Your task to perform on an android device: Open calendar and show me the third week of next month Image 0: 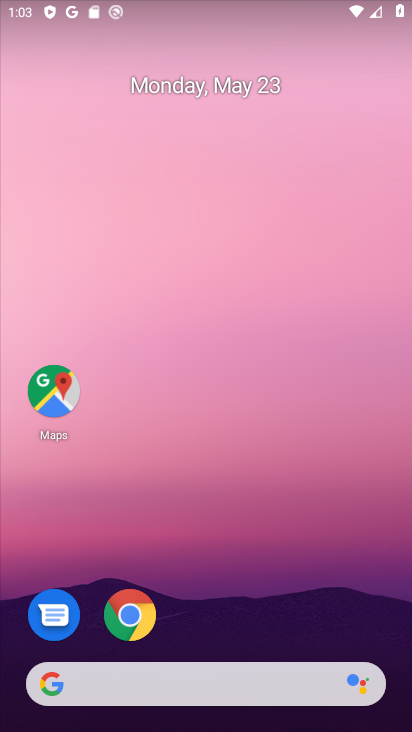
Step 0: drag from (205, 656) to (140, 104)
Your task to perform on an android device: Open calendar and show me the third week of next month Image 1: 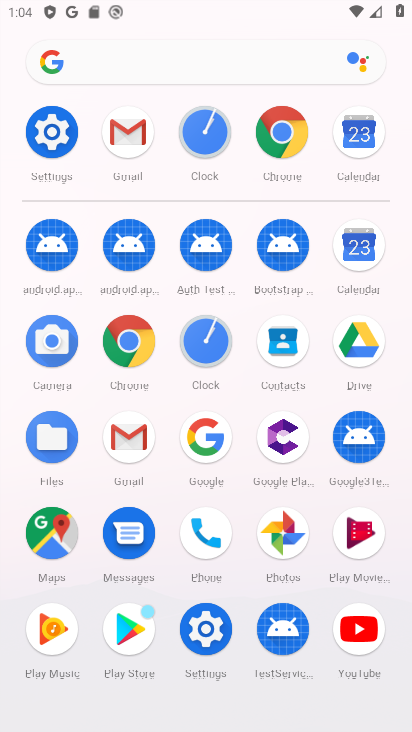
Step 1: click (370, 252)
Your task to perform on an android device: Open calendar and show me the third week of next month Image 2: 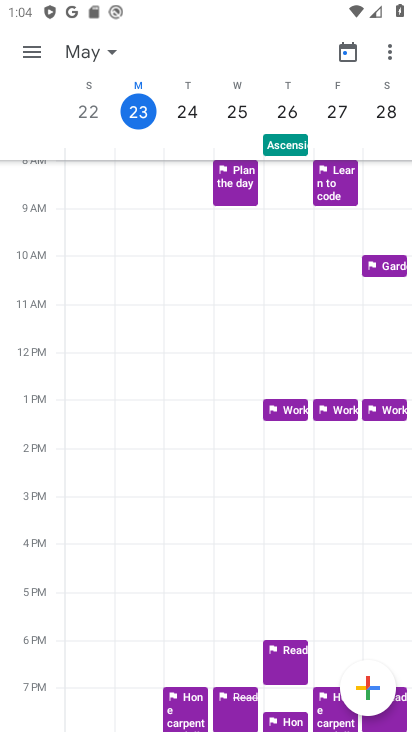
Step 2: task complete